Your task to perform on an android device: Go to settings Image 0: 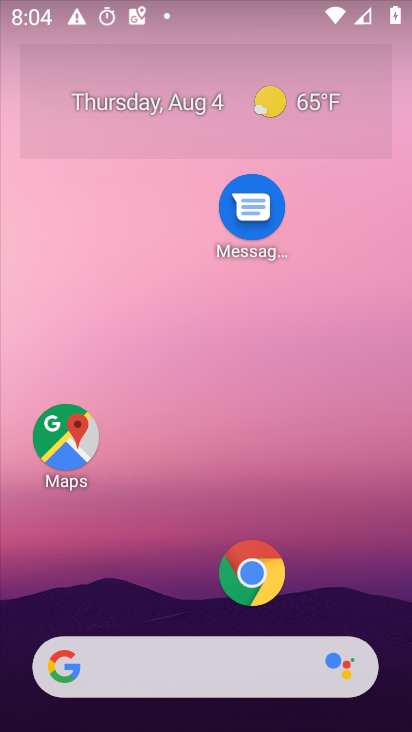
Step 0: press home button
Your task to perform on an android device: Go to settings Image 1: 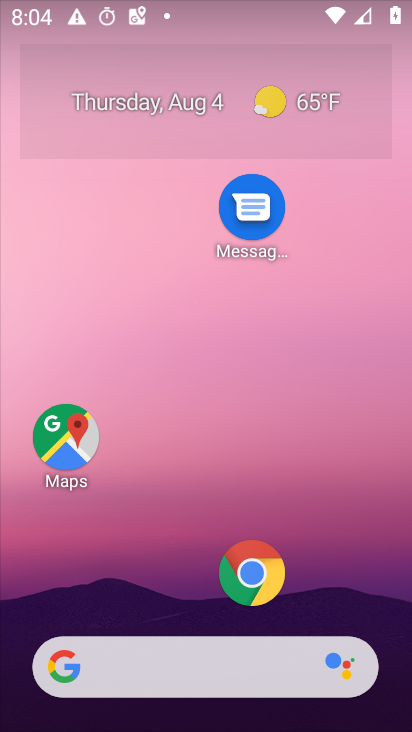
Step 1: drag from (123, 595) to (256, 159)
Your task to perform on an android device: Go to settings Image 2: 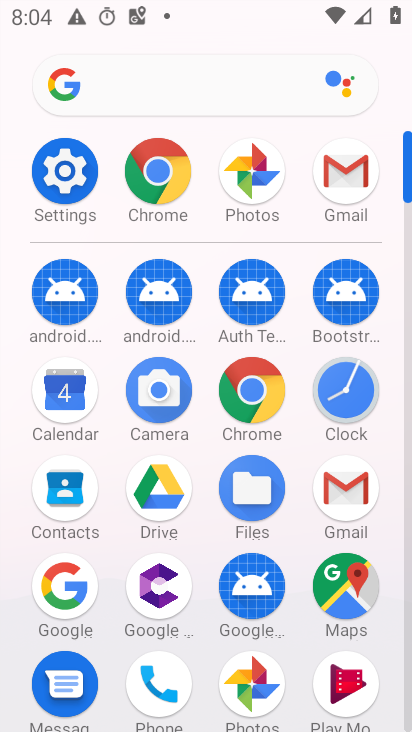
Step 2: click (68, 184)
Your task to perform on an android device: Go to settings Image 3: 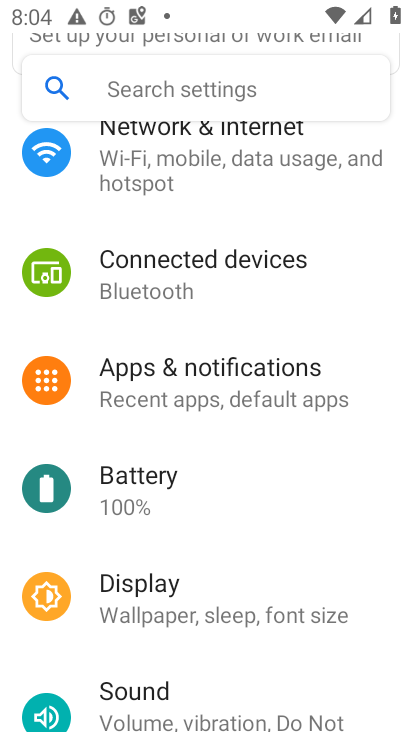
Step 3: task complete